Your task to perform on an android device: allow notifications from all sites in the chrome app Image 0: 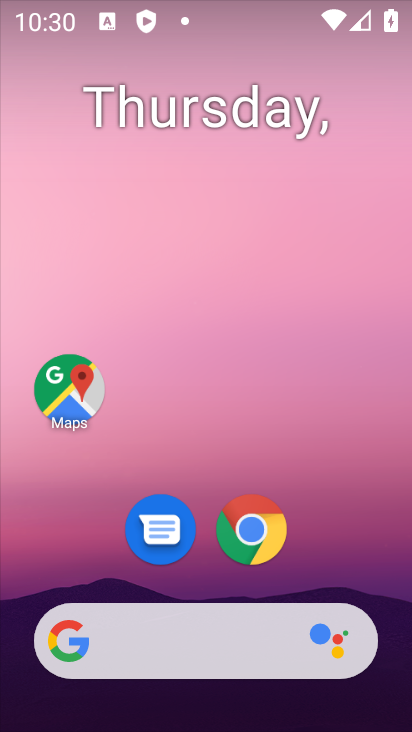
Step 0: drag from (206, 581) to (261, 161)
Your task to perform on an android device: allow notifications from all sites in the chrome app Image 1: 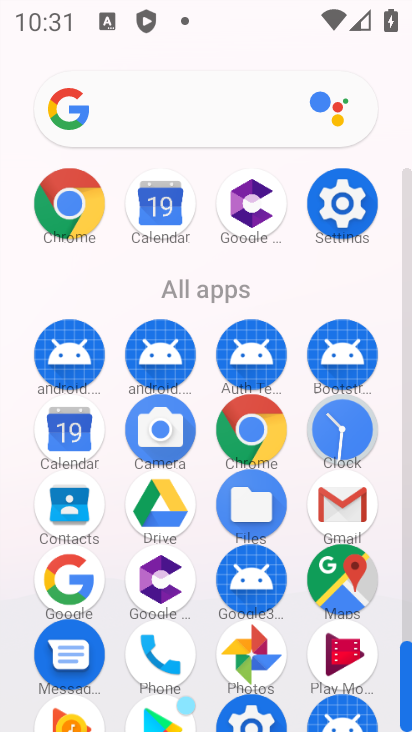
Step 1: click (267, 446)
Your task to perform on an android device: allow notifications from all sites in the chrome app Image 2: 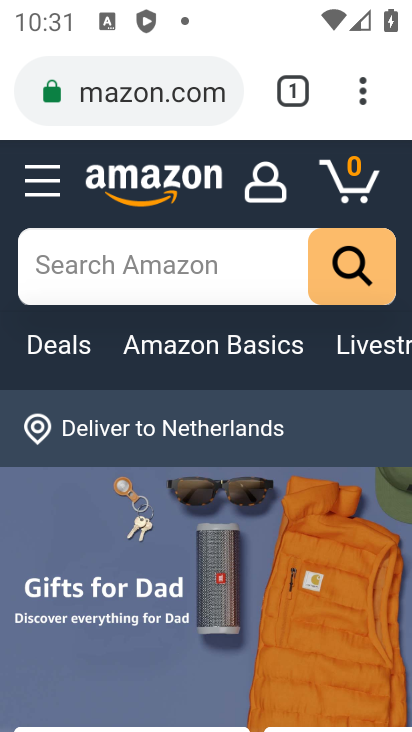
Step 2: click (365, 102)
Your task to perform on an android device: allow notifications from all sites in the chrome app Image 3: 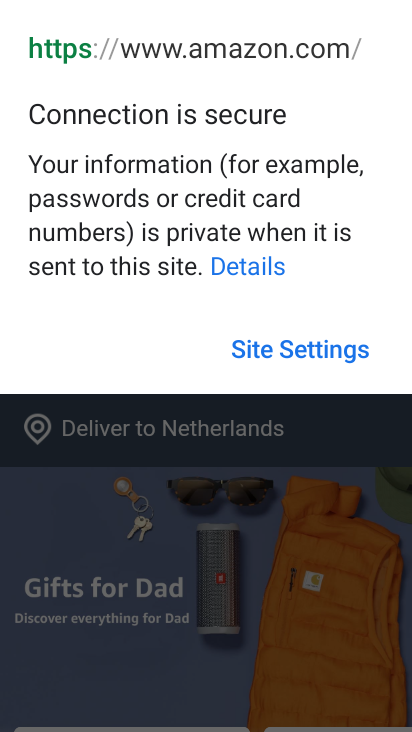
Step 3: click (335, 578)
Your task to perform on an android device: allow notifications from all sites in the chrome app Image 4: 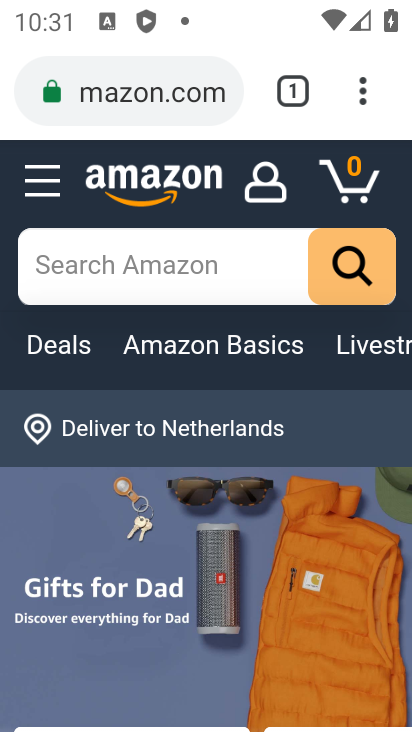
Step 4: click (370, 98)
Your task to perform on an android device: allow notifications from all sites in the chrome app Image 5: 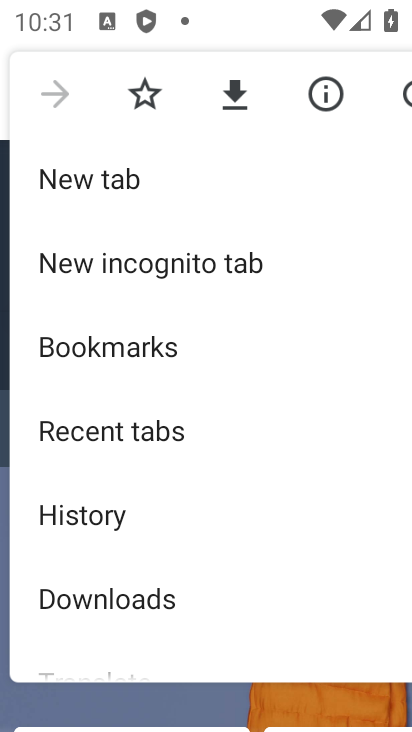
Step 5: drag from (229, 470) to (316, 3)
Your task to perform on an android device: allow notifications from all sites in the chrome app Image 6: 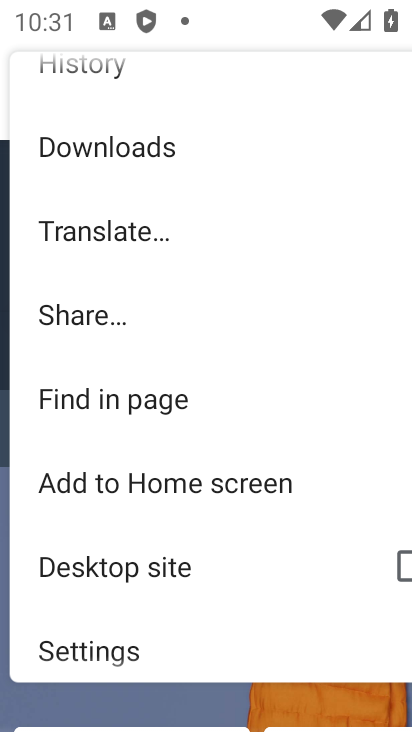
Step 6: drag from (184, 514) to (235, 138)
Your task to perform on an android device: allow notifications from all sites in the chrome app Image 7: 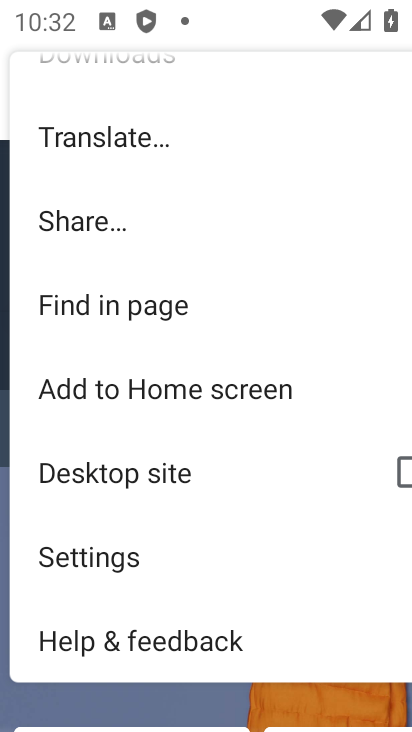
Step 7: click (194, 562)
Your task to perform on an android device: allow notifications from all sites in the chrome app Image 8: 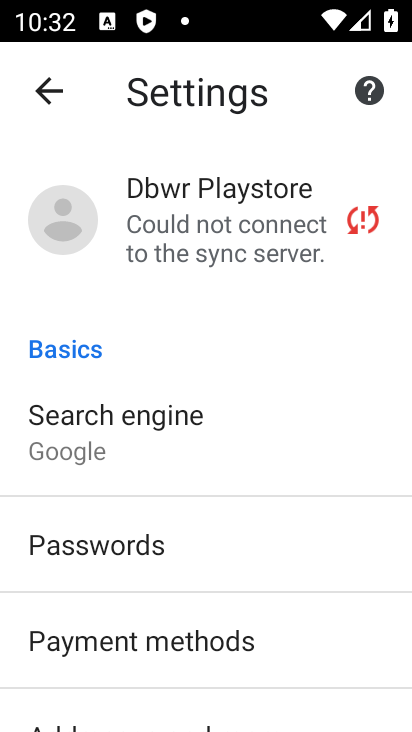
Step 8: drag from (199, 569) to (238, 38)
Your task to perform on an android device: allow notifications from all sites in the chrome app Image 9: 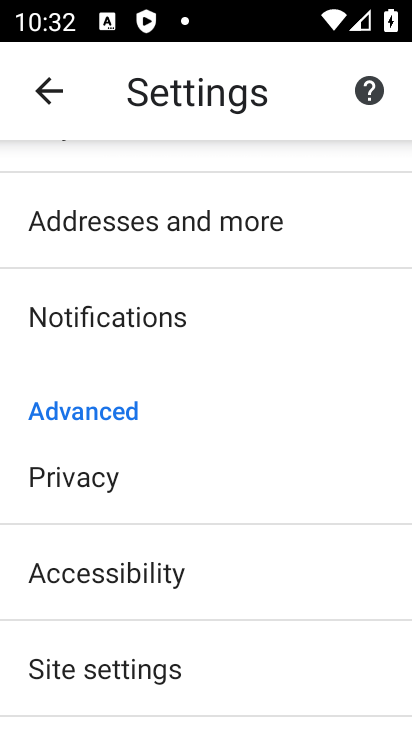
Step 9: click (202, 337)
Your task to perform on an android device: allow notifications from all sites in the chrome app Image 10: 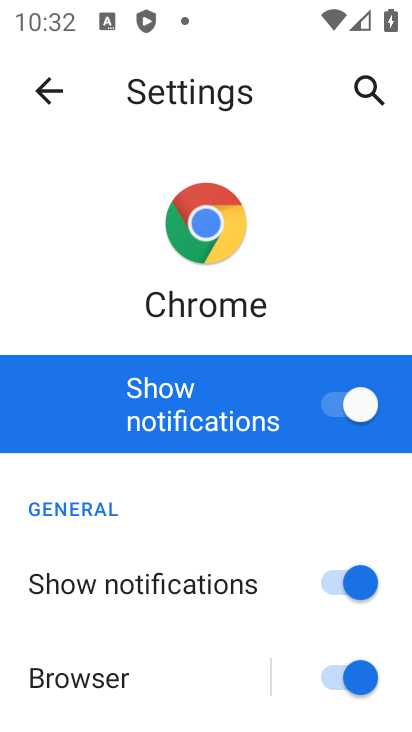
Step 10: task complete